Your task to perform on an android device: set the timer Image 0: 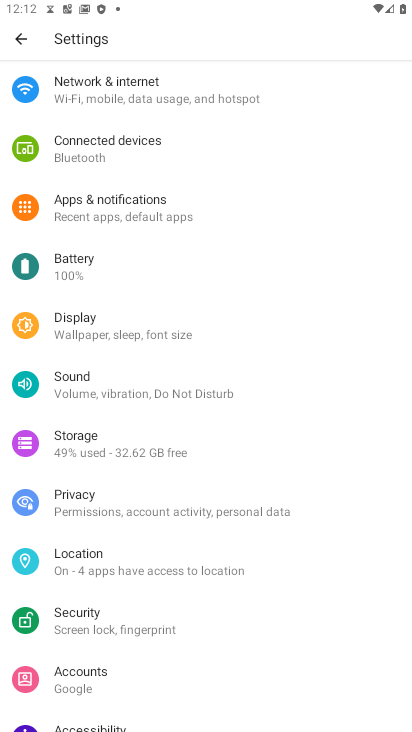
Step 0: press back button
Your task to perform on an android device: set the timer Image 1: 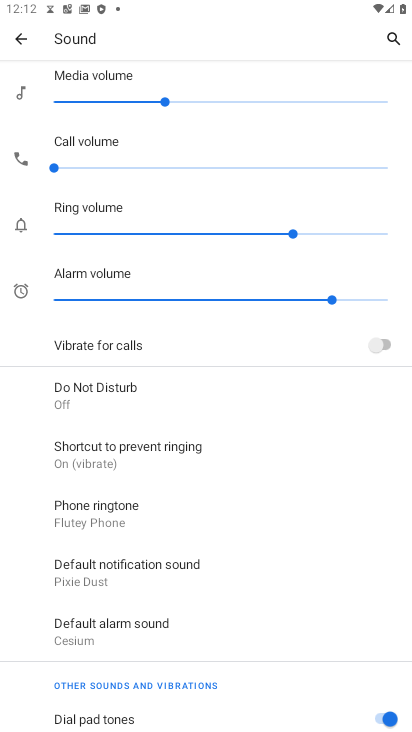
Step 1: press back button
Your task to perform on an android device: set the timer Image 2: 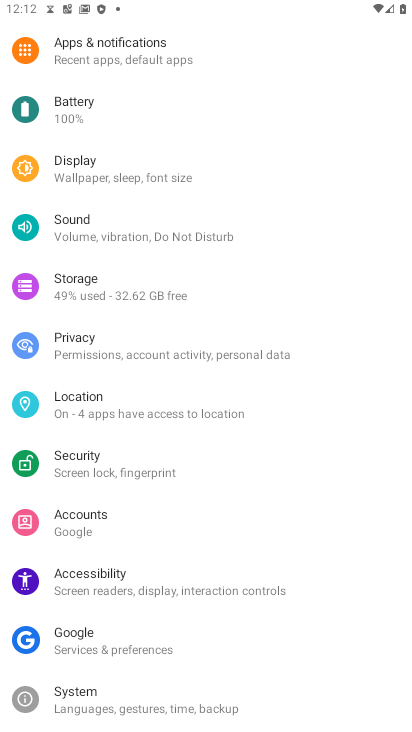
Step 2: press home button
Your task to perform on an android device: set the timer Image 3: 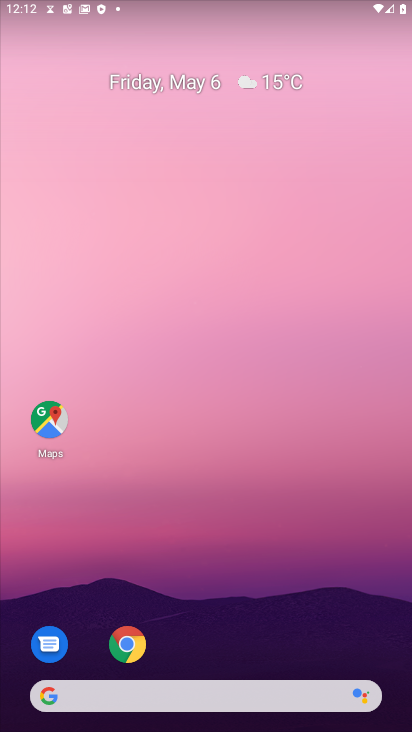
Step 3: drag from (296, 576) to (289, 3)
Your task to perform on an android device: set the timer Image 4: 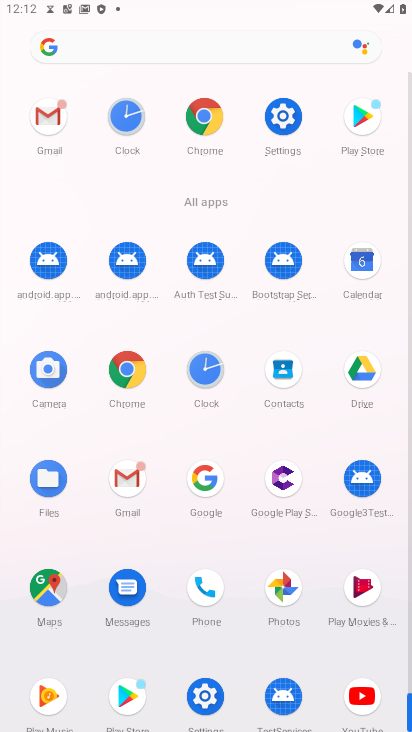
Step 4: click (204, 368)
Your task to perform on an android device: set the timer Image 5: 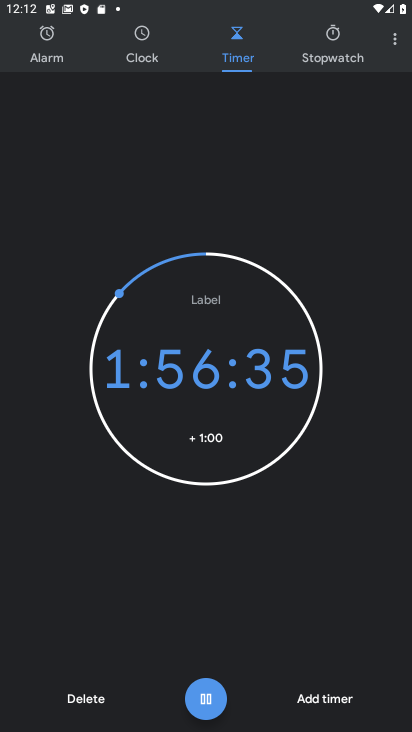
Step 5: click (321, 689)
Your task to perform on an android device: set the timer Image 6: 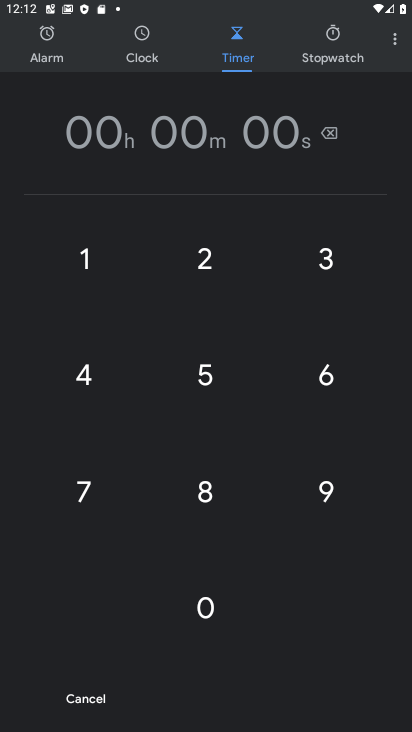
Step 6: drag from (211, 371) to (74, 473)
Your task to perform on an android device: set the timer Image 7: 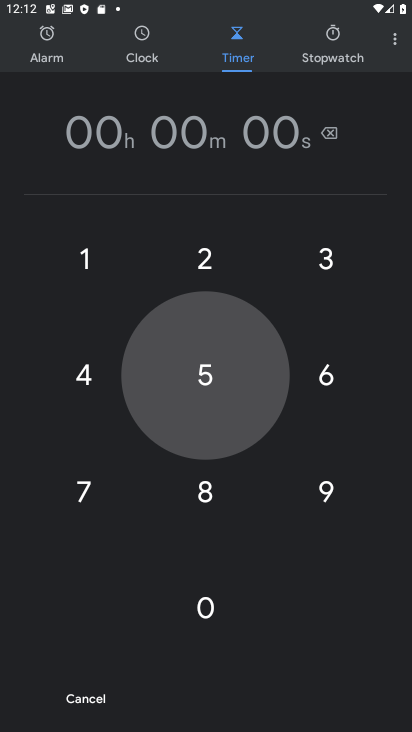
Step 7: click (216, 496)
Your task to perform on an android device: set the timer Image 8: 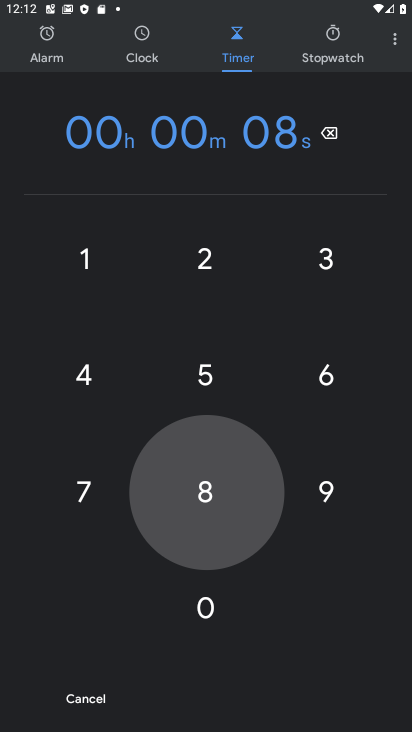
Step 8: click (283, 499)
Your task to perform on an android device: set the timer Image 9: 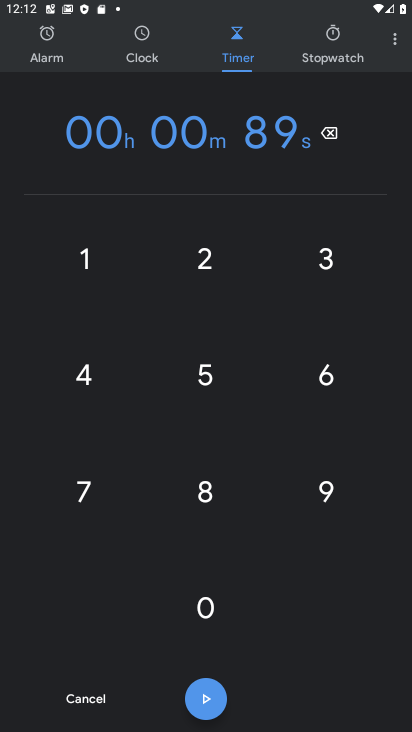
Step 9: click (317, 382)
Your task to perform on an android device: set the timer Image 10: 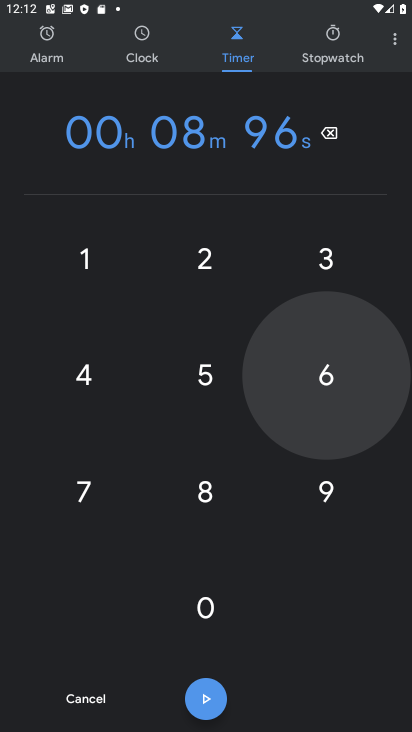
Step 10: click (324, 235)
Your task to perform on an android device: set the timer Image 11: 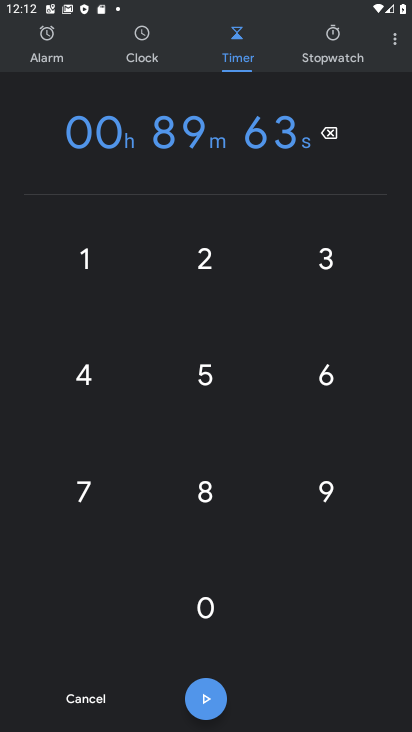
Step 11: click (211, 696)
Your task to perform on an android device: set the timer Image 12: 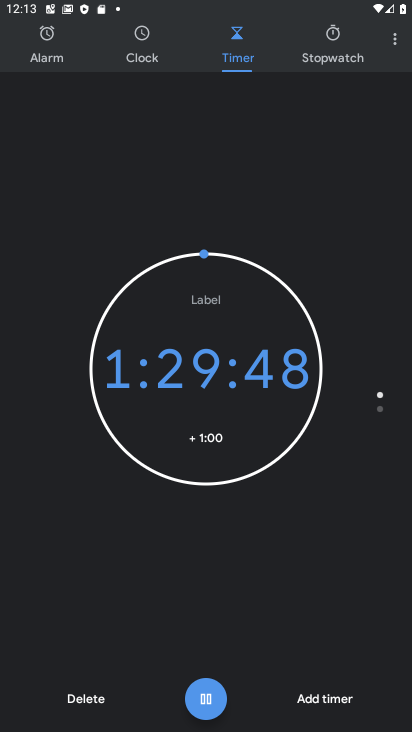
Step 12: task complete